Your task to perform on an android device: delete the emails in spam in the gmail app Image 0: 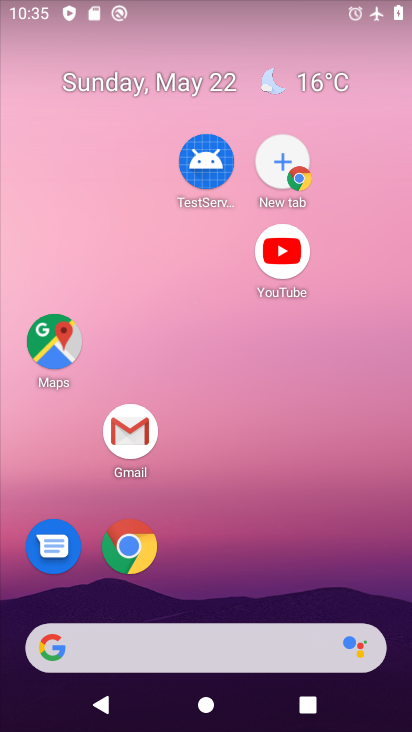
Step 0: drag from (278, 654) to (226, 330)
Your task to perform on an android device: delete the emails in spam in the gmail app Image 1: 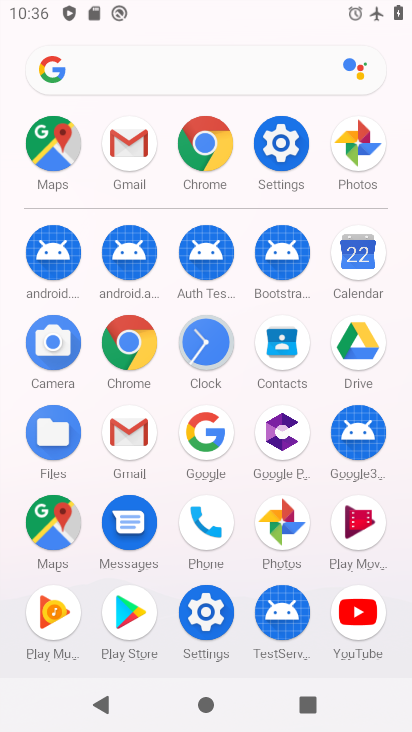
Step 1: click (121, 435)
Your task to perform on an android device: delete the emails in spam in the gmail app Image 2: 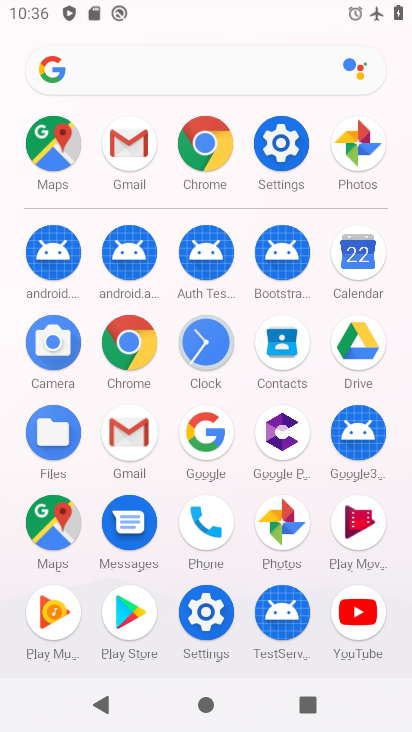
Step 2: click (102, 445)
Your task to perform on an android device: delete the emails in spam in the gmail app Image 3: 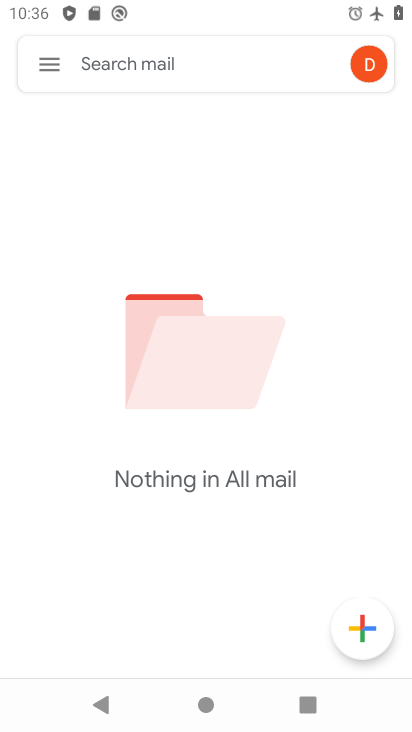
Step 3: press back button
Your task to perform on an android device: delete the emails in spam in the gmail app Image 4: 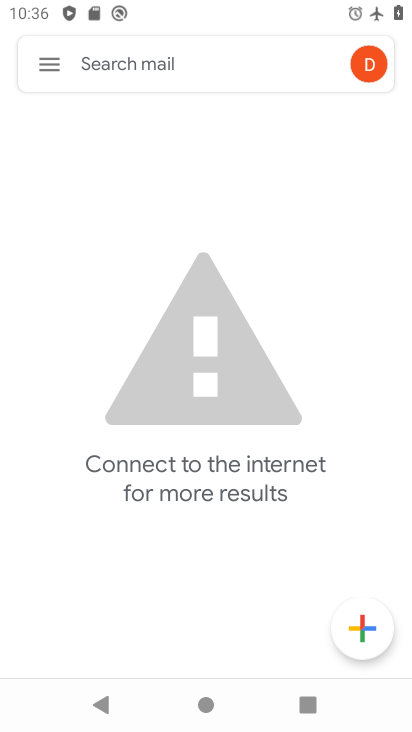
Step 4: press home button
Your task to perform on an android device: delete the emails in spam in the gmail app Image 5: 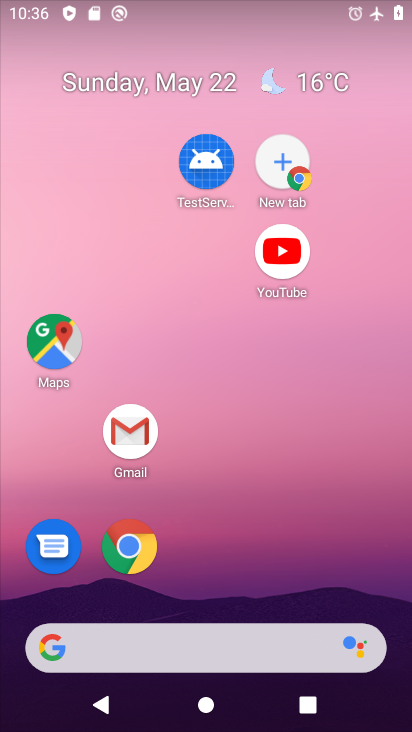
Step 5: drag from (251, 632) to (202, 239)
Your task to perform on an android device: delete the emails in spam in the gmail app Image 6: 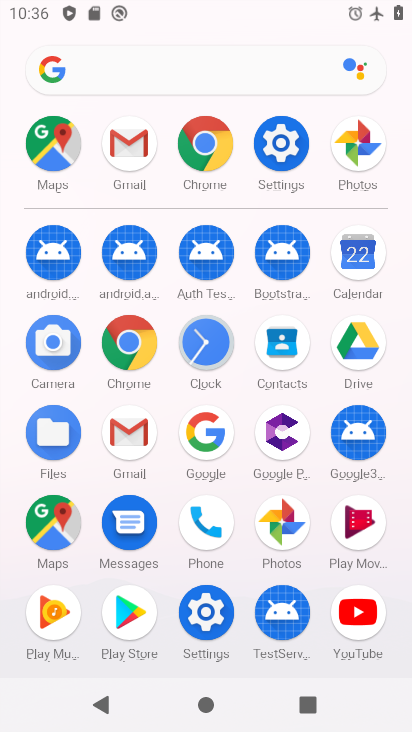
Step 6: click (122, 437)
Your task to perform on an android device: delete the emails in spam in the gmail app Image 7: 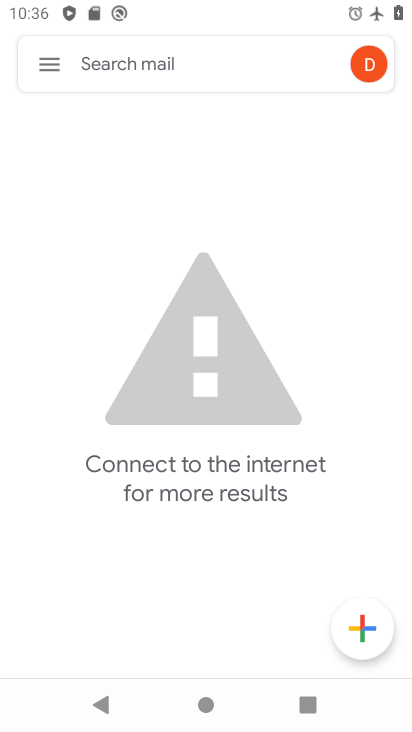
Step 7: click (47, 55)
Your task to perform on an android device: delete the emails in spam in the gmail app Image 8: 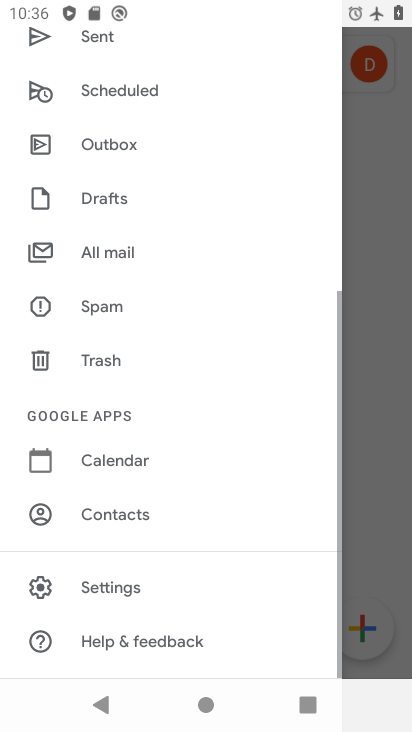
Step 8: click (104, 253)
Your task to perform on an android device: delete the emails in spam in the gmail app Image 9: 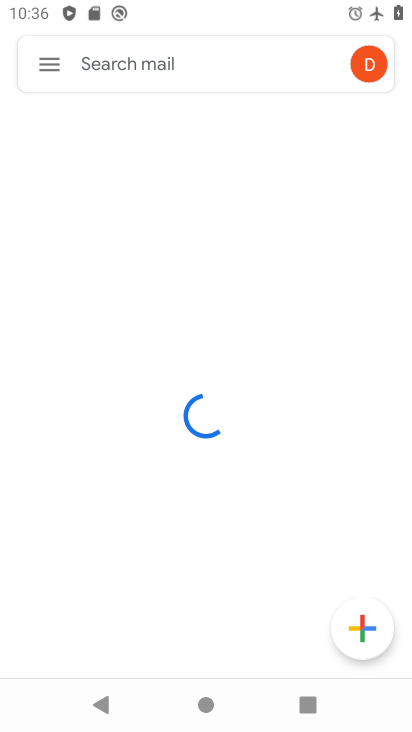
Step 9: click (36, 60)
Your task to perform on an android device: delete the emails in spam in the gmail app Image 10: 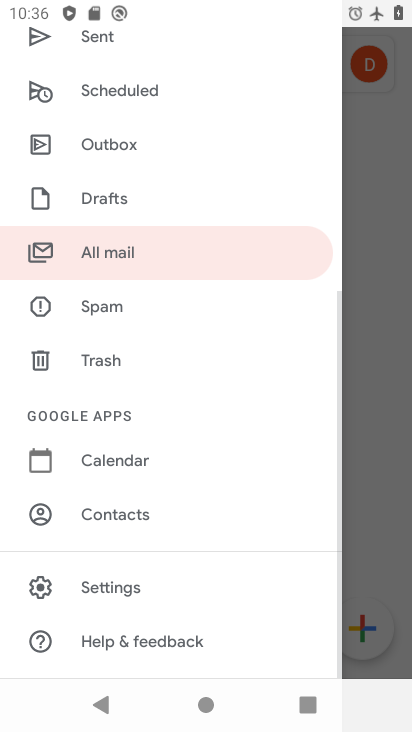
Step 10: click (87, 293)
Your task to perform on an android device: delete the emails in spam in the gmail app Image 11: 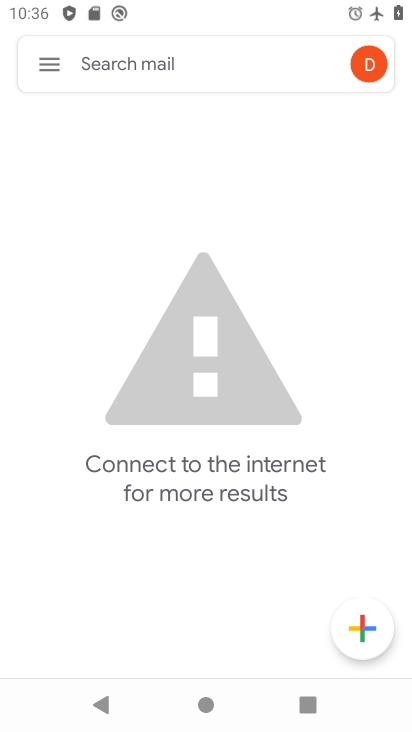
Step 11: task complete